Your task to perform on an android device: Find coffee shops on Maps Image 0: 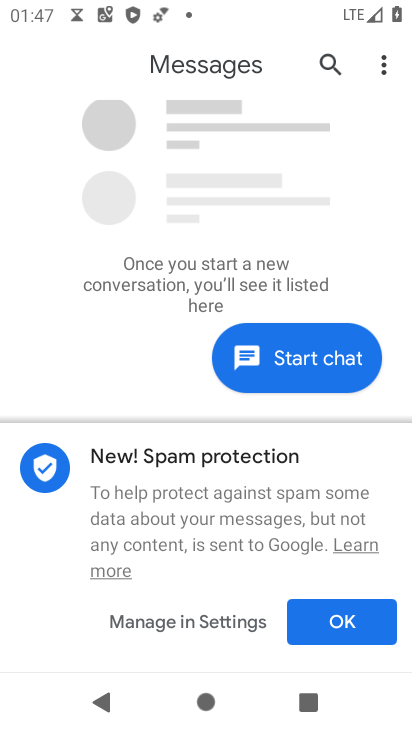
Step 0: press home button
Your task to perform on an android device: Find coffee shops on Maps Image 1: 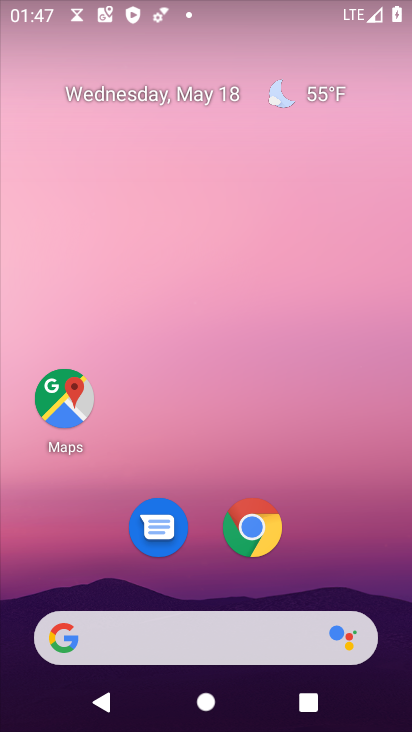
Step 1: click (79, 411)
Your task to perform on an android device: Find coffee shops on Maps Image 2: 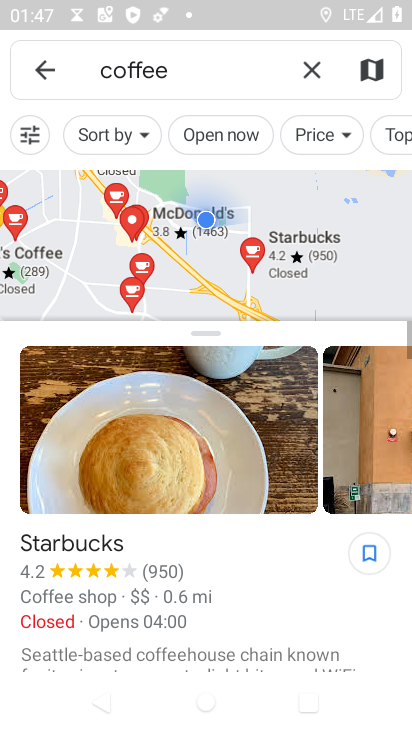
Step 2: task complete